Your task to perform on an android device: delete the emails in spam in the gmail app Image 0: 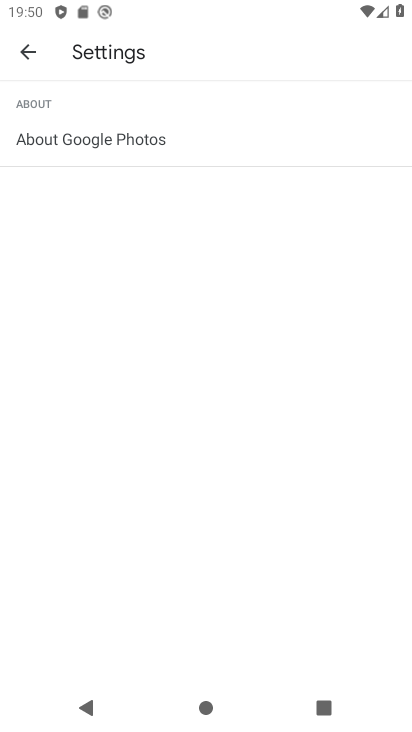
Step 0: press home button
Your task to perform on an android device: delete the emails in spam in the gmail app Image 1: 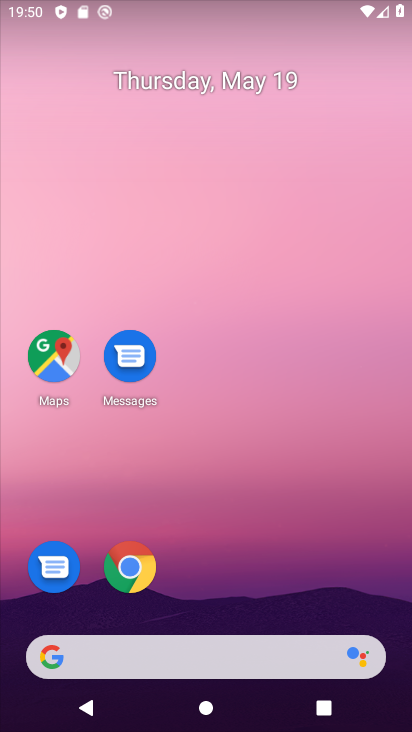
Step 1: drag from (223, 609) to (175, 58)
Your task to perform on an android device: delete the emails in spam in the gmail app Image 2: 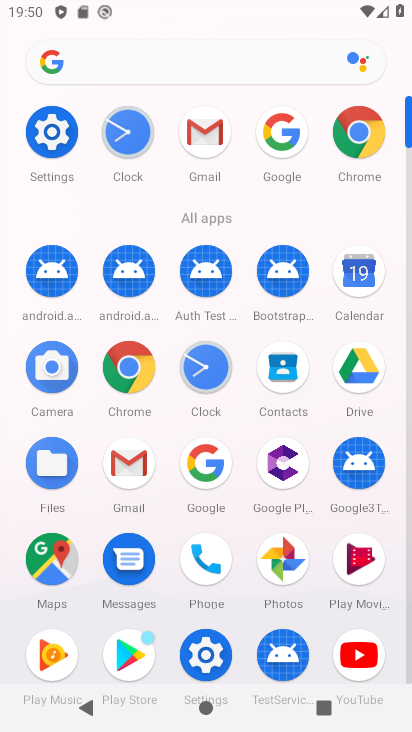
Step 2: click (128, 473)
Your task to perform on an android device: delete the emails in spam in the gmail app Image 3: 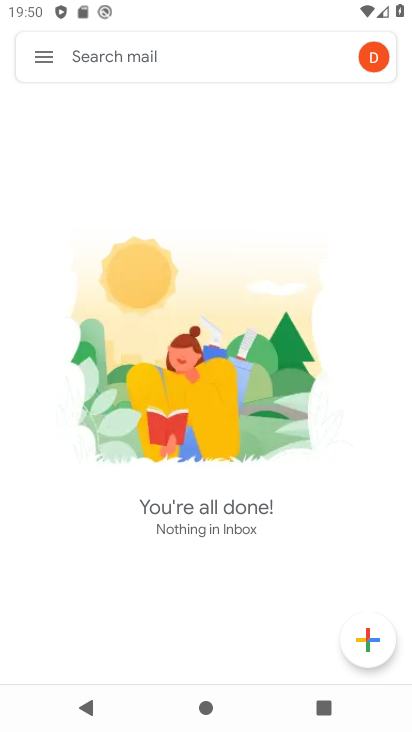
Step 3: click (48, 51)
Your task to perform on an android device: delete the emails in spam in the gmail app Image 4: 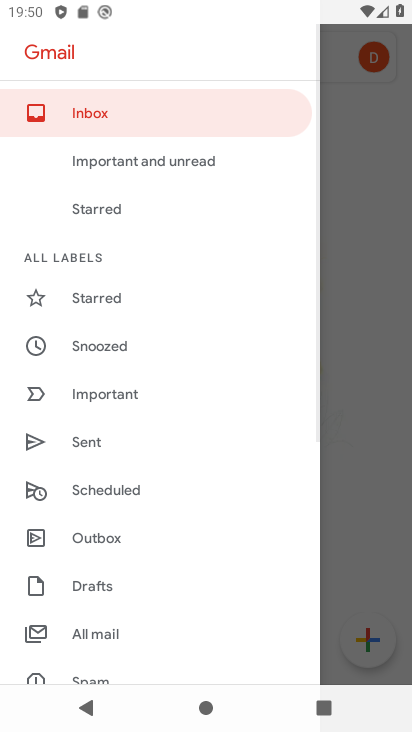
Step 4: drag from (100, 627) to (74, 462)
Your task to perform on an android device: delete the emails in spam in the gmail app Image 5: 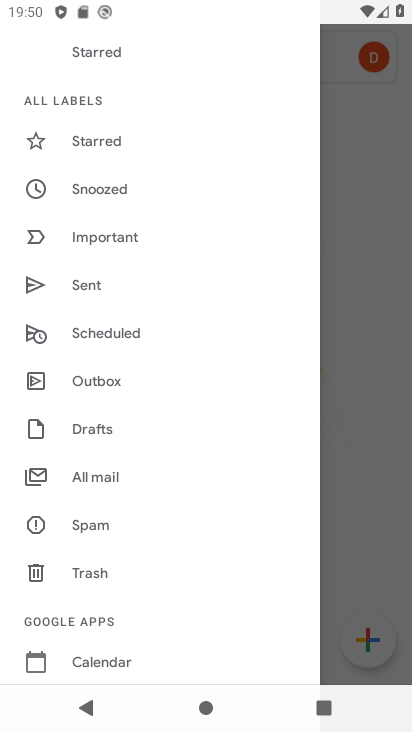
Step 5: click (83, 527)
Your task to perform on an android device: delete the emails in spam in the gmail app Image 6: 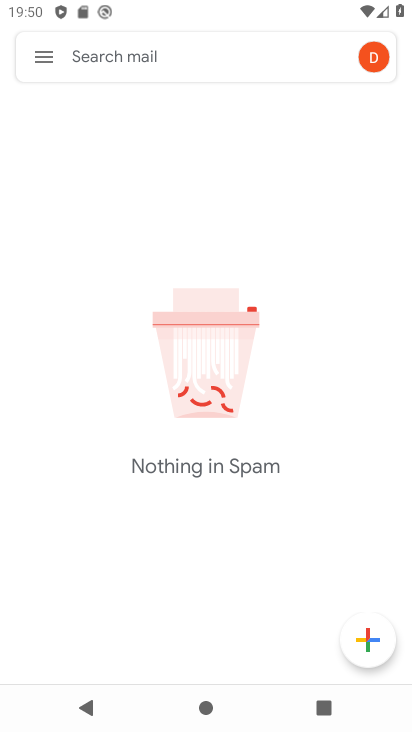
Step 6: task complete